Your task to perform on an android device: check battery use Image 0: 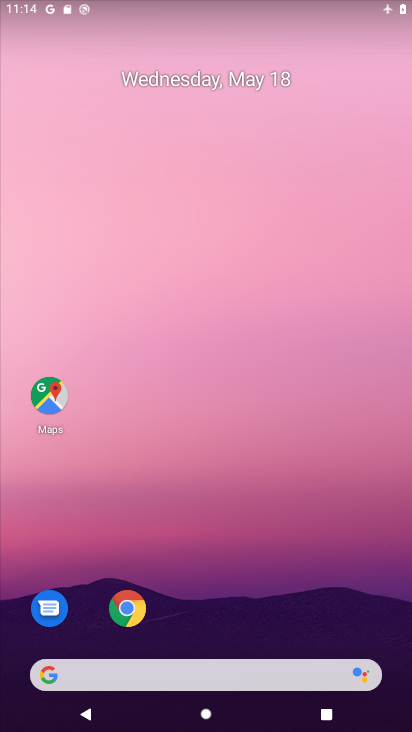
Step 0: drag from (196, 625) to (53, 105)
Your task to perform on an android device: check battery use Image 1: 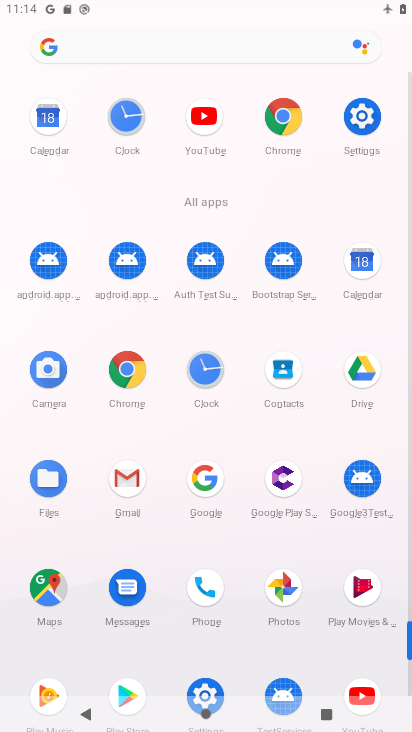
Step 1: click (358, 123)
Your task to perform on an android device: check battery use Image 2: 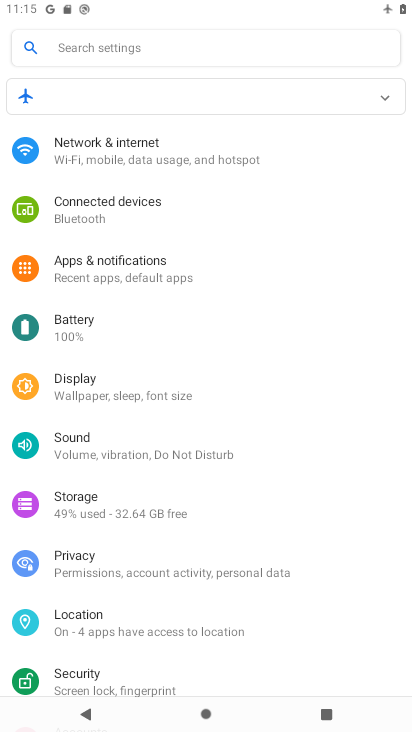
Step 2: click (69, 329)
Your task to perform on an android device: check battery use Image 3: 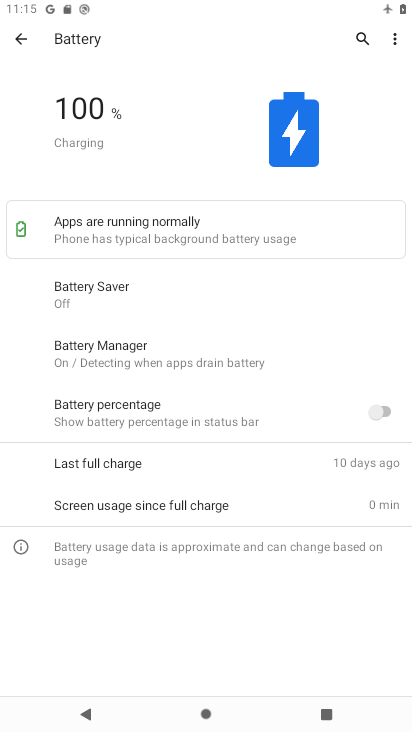
Step 3: task complete